Your task to perform on an android device: Go to Amazon Image 0: 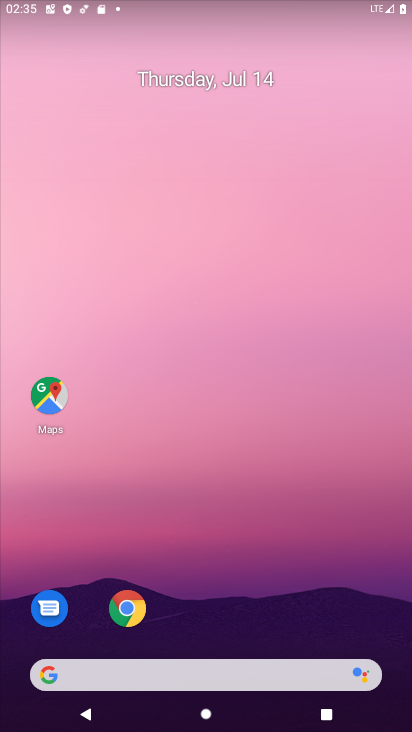
Step 0: click (119, 597)
Your task to perform on an android device: Go to Amazon Image 1: 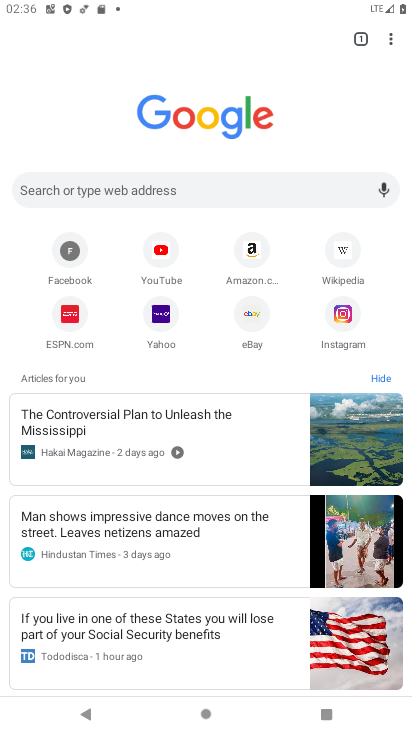
Step 1: click (256, 254)
Your task to perform on an android device: Go to Amazon Image 2: 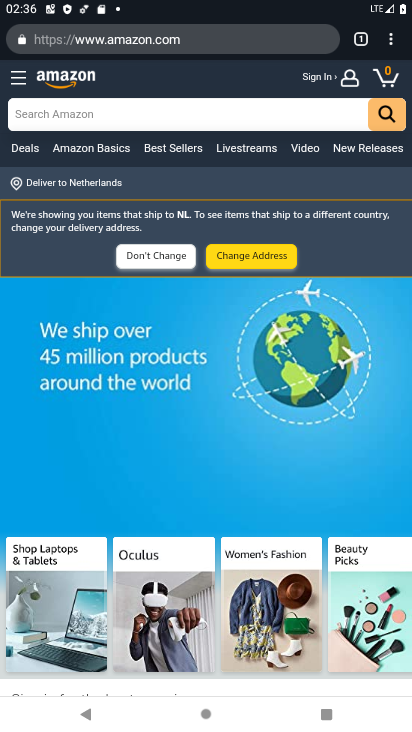
Step 2: task complete